Your task to perform on an android device: Is it going to rain tomorrow? Image 0: 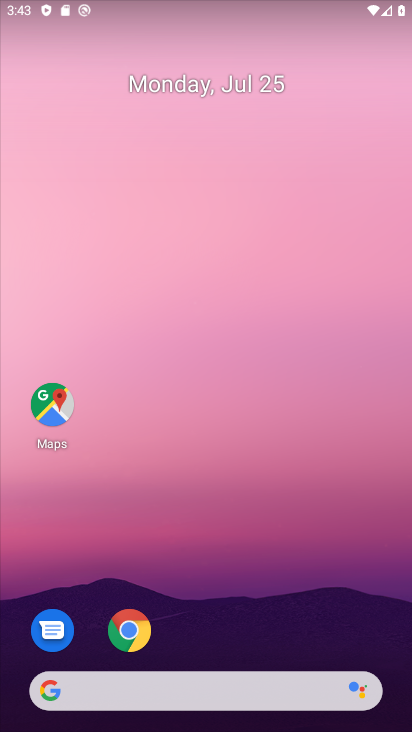
Step 0: drag from (216, 647) to (215, 159)
Your task to perform on an android device: Is it going to rain tomorrow? Image 1: 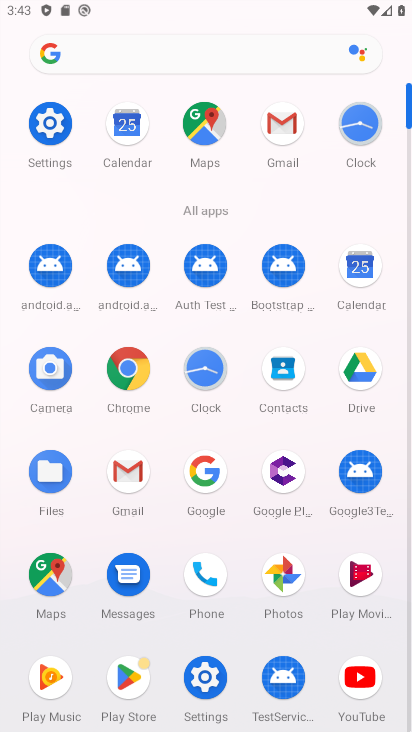
Step 1: click (129, 384)
Your task to perform on an android device: Is it going to rain tomorrow? Image 2: 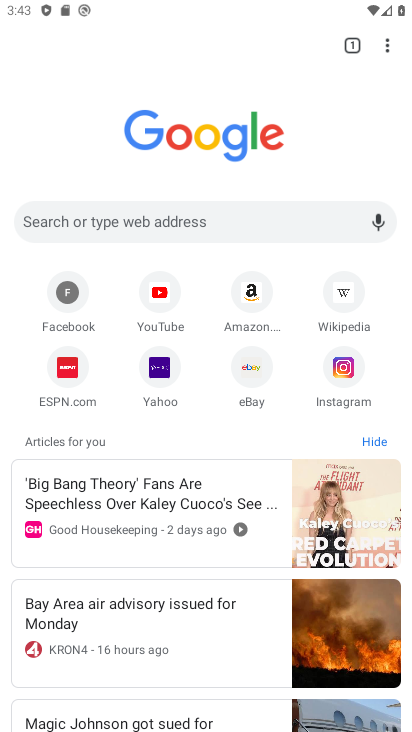
Step 2: click (165, 223)
Your task to perform on an android device: Is it going to rain tomorrow? Image 3: 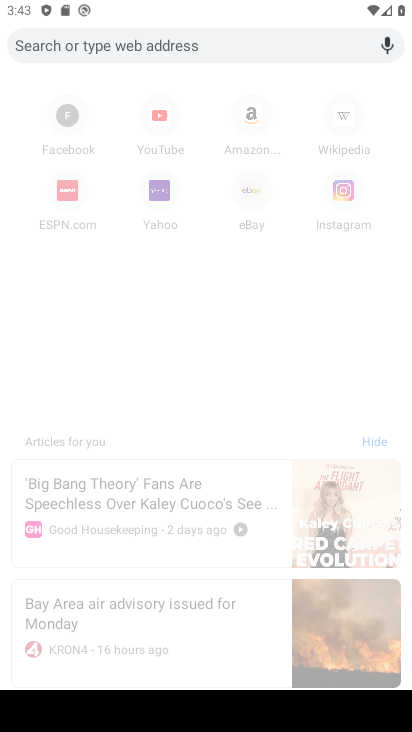
Step 3: type "Is it going to rain tomorrow?"
Your task to perform on an android device: Is it going to rain tomorrow? Image 4: 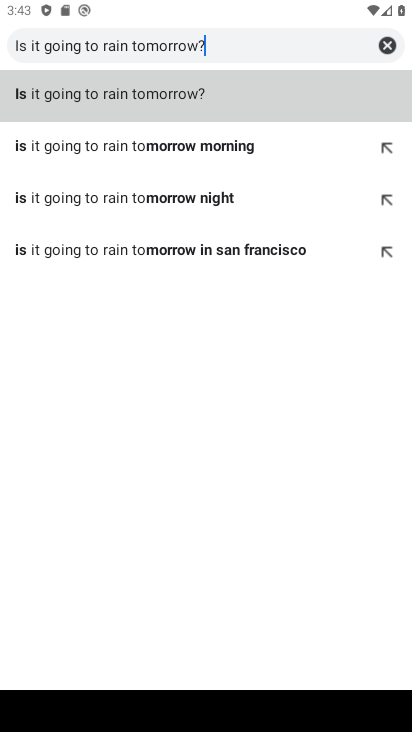
Step 4: click (259, 98)
Your task to perform on an android device: Is it going to rain tomorrow? Image 5: 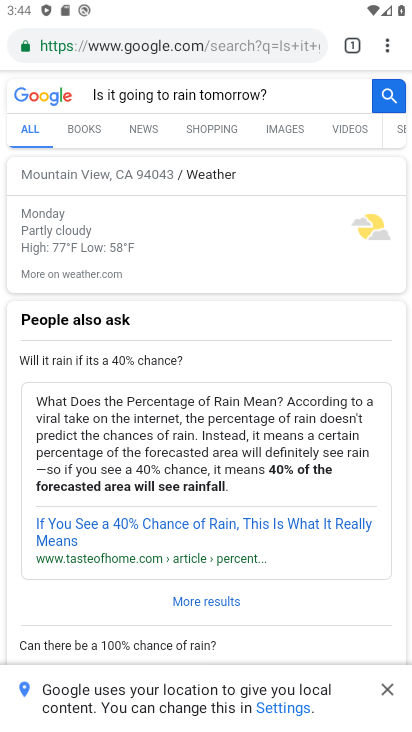
Step 5: task complete